Your task to perform on an android device: open app "Indeed Job Search" (install if not already installed) Image 0: 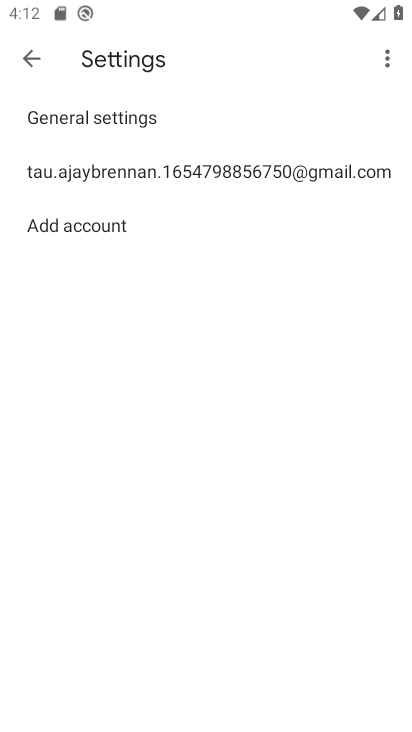
Step 0: press home button
Your task to perform on an android device: open app "Indeed Job Search" (install if not already installed) Image 1: 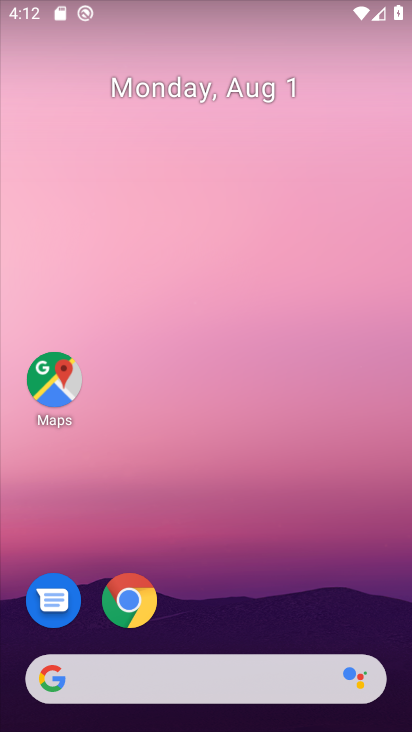
Step 1: drag from (210, 561) to (256, 0)
Your task to perform on an android device: open app "Indeed Job Search" (install if not already installed) Image 2: 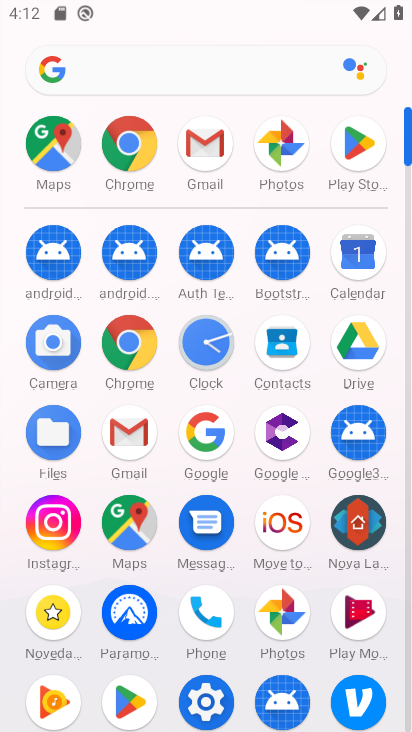
Step 2: click (356, 165)
Your task to perform on an android device: open app "Indeed Job Search" (install if not already installed) Image 3: 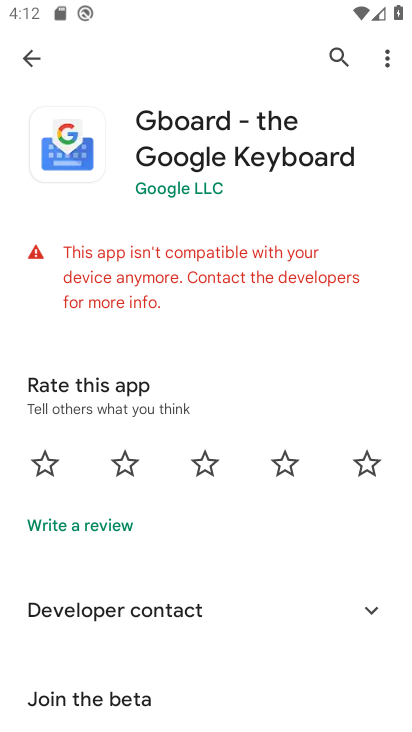
Step 3: click (338, 61)
Your task to perform on an android device: open app "Indeed Job Search" (install if not already installed) Image 4: 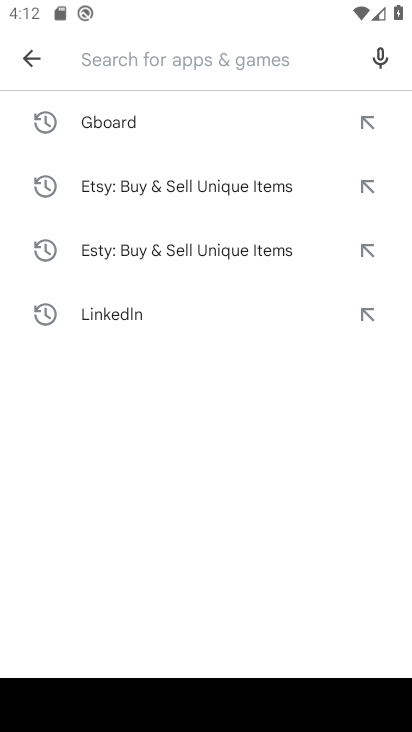
Step 4: type "Indeed Job Search"
Your task to perform on an android device: open app "Indeed Job Search" (install if not already installed) Image 5: 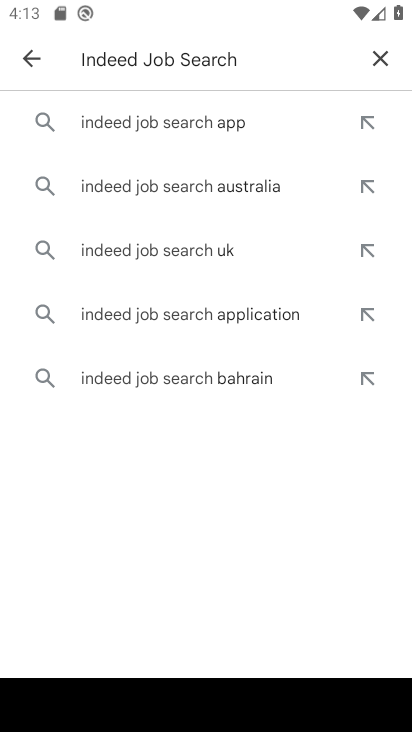
Step 5: press enter
Your task to perform on an android device: open app "Indeed Job Search" (install if not already installed) Image 6: 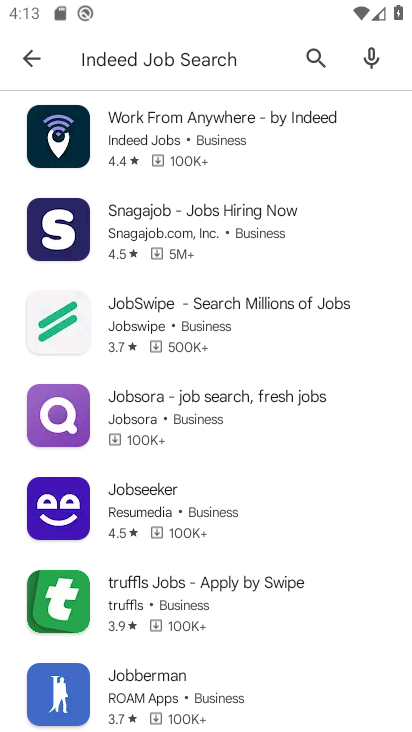
Step 6: task complete